Your task to perform on an android device: Open Chrome and go to the settings page Image 0: 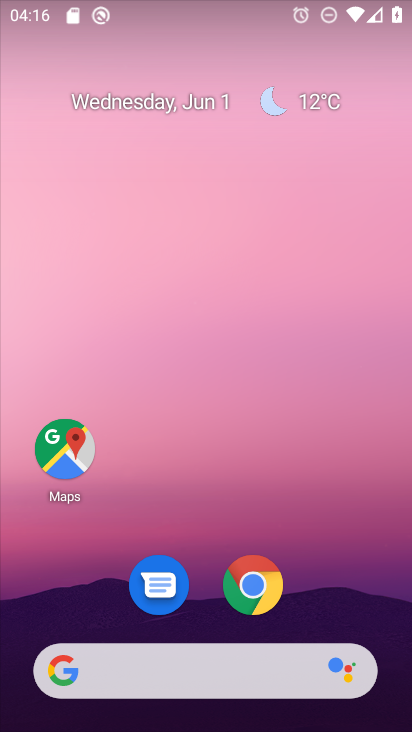
Step 0: drag from (225, 524) to (224, 438)
Your task to perform on an android device: Open Chrome and go to the settings page Image 1: 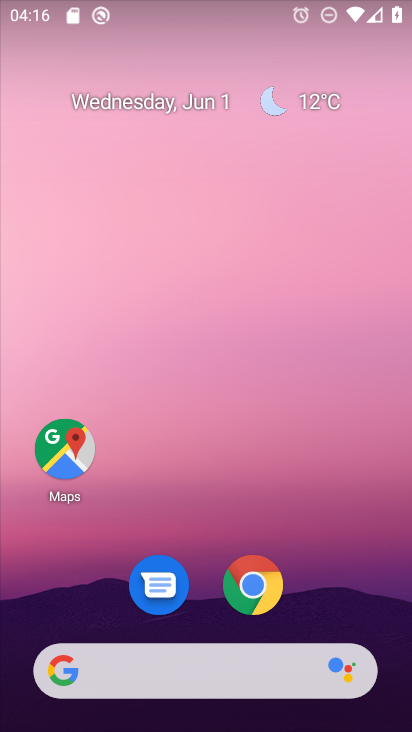
Step 1: click (260, 577)
Your task to perform on an android device: Open Chrome and go to the settings page Image 2: 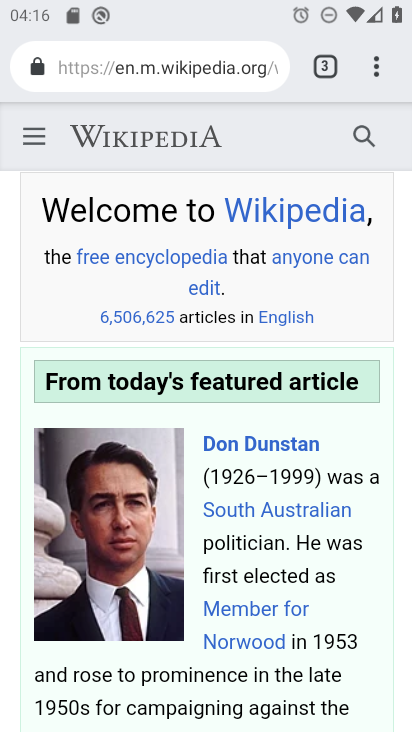
Step 2: click (373, 69)
Your task to perform on an android device: Open Chrome and go to the settings page Image 3: 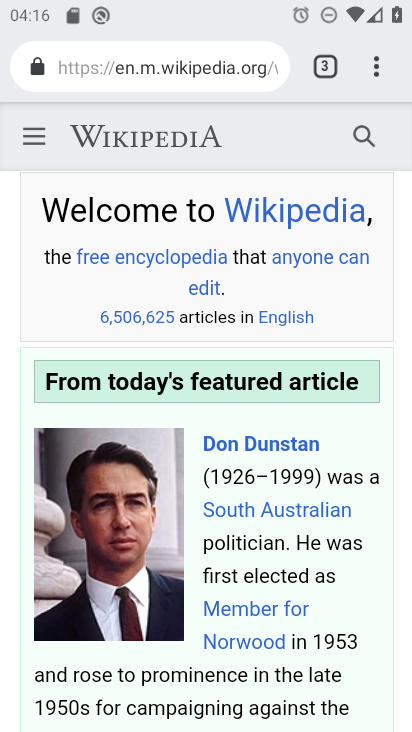
Step 3: click (373, 69)
Your task to perform on an android device: Open Chrome and go to the settings page Image 4: 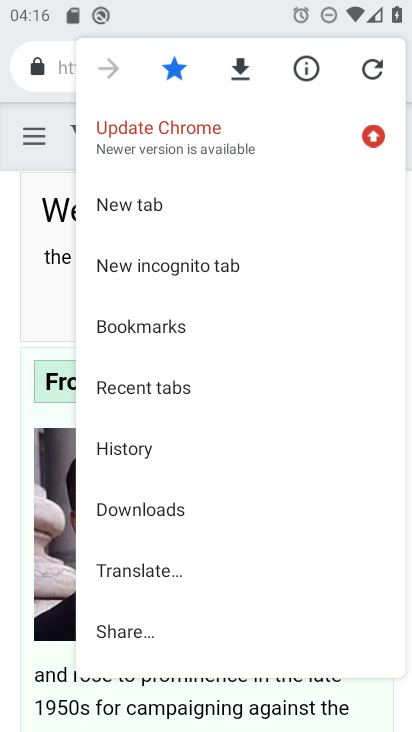
Step 4: drag from (230, 560) to (253, 288)
Your task to perform on an android device: Open Chrome and go to the settings page Image 5: 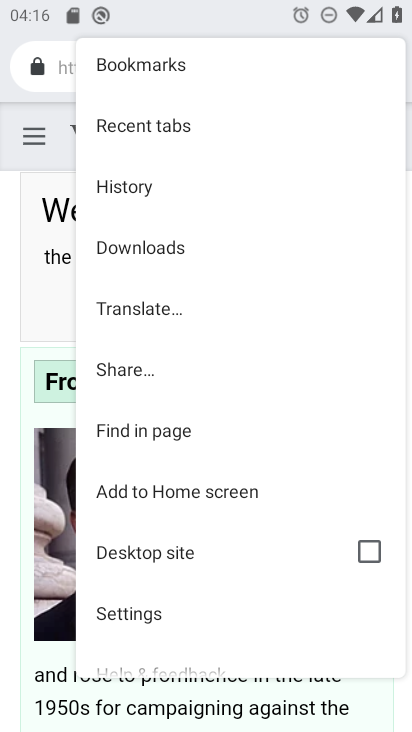
Step 5: click (179, 623)
Your task to perform on an android device: Open Chrome and go to the settings page Image 6: 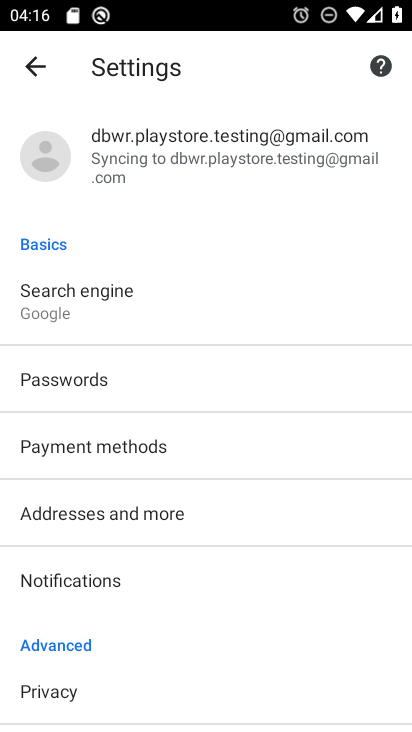
Step 6: task complete